Your task to perform on an android device: Go to Google maps Image 0: 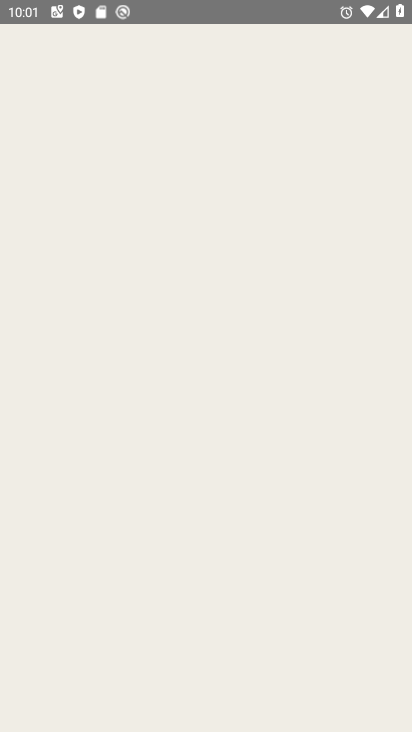
Step 0: drag from (374, 514) to (383, 58)
Your task to perform on an android device: Go to Google maps Image 1: 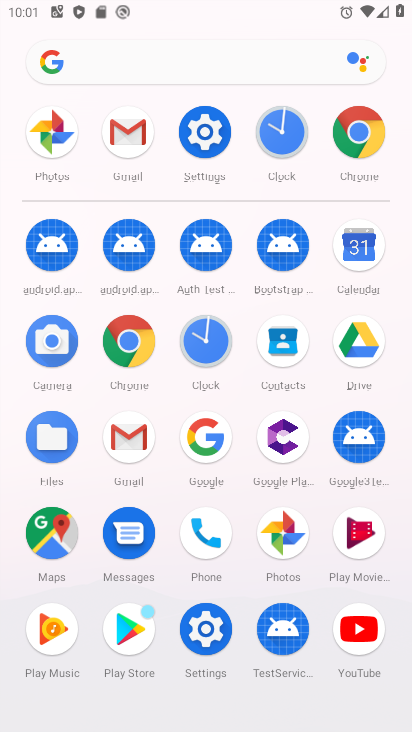
Step 1: click (55, 535)
Your task to perform on an android device: Go to Google maps Image 2: 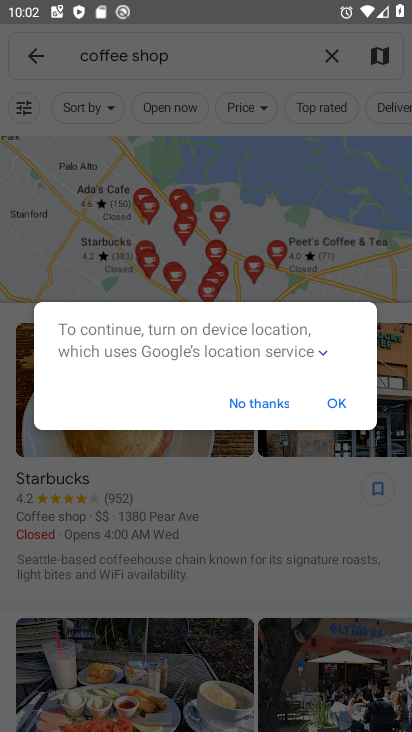
Step 2: click (321, 415)
Your task to perform on an android device: Go to Google maps Image 3: 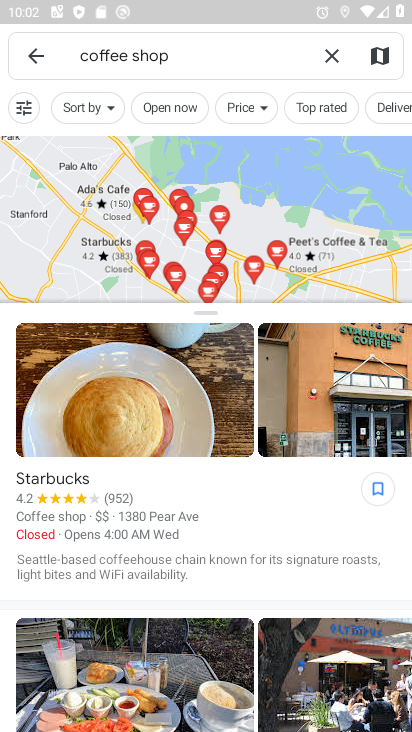
Step 3: task complete